Your task to perform on an android device: turn pop-ups off in chrome Image 0: 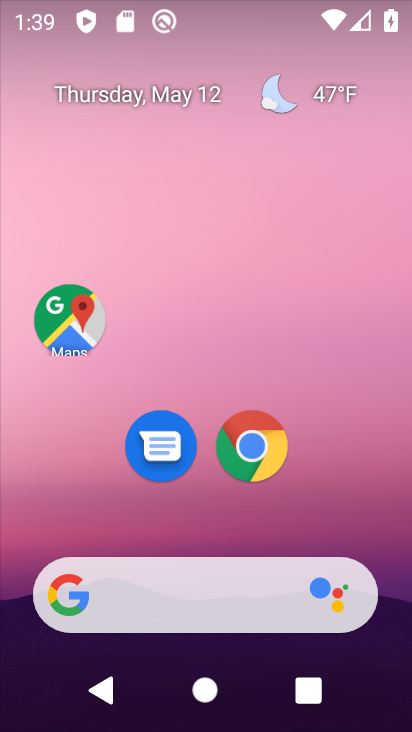
Step 0: drag from (199, 538) to (291, 78)
Your task to perform on an android device: turn pop-ups off in chrome Image 1: 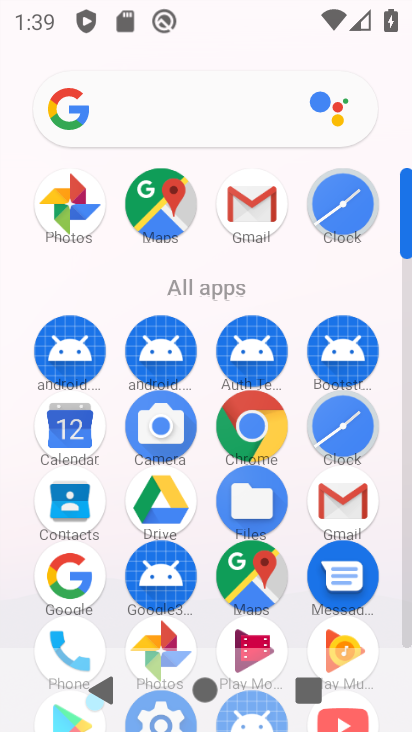
Step 1: click (243, 433)
Your task to perform on an android device: turn pop-ups off in chrome Image 2: 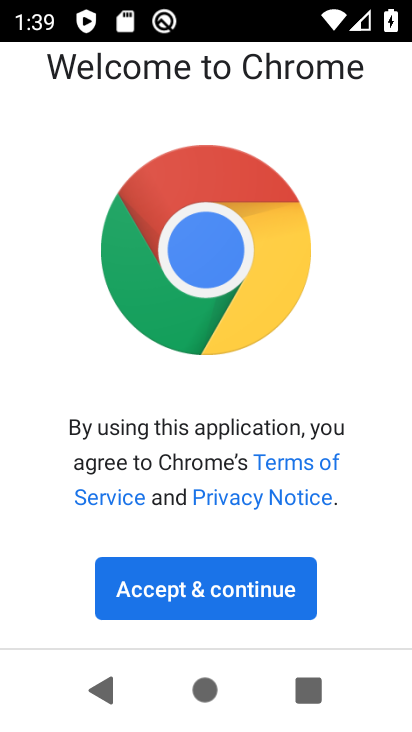
Step 2: click (259, 618)
Your task to perform on an android device: turn pop-ups off in chrome Image 3: 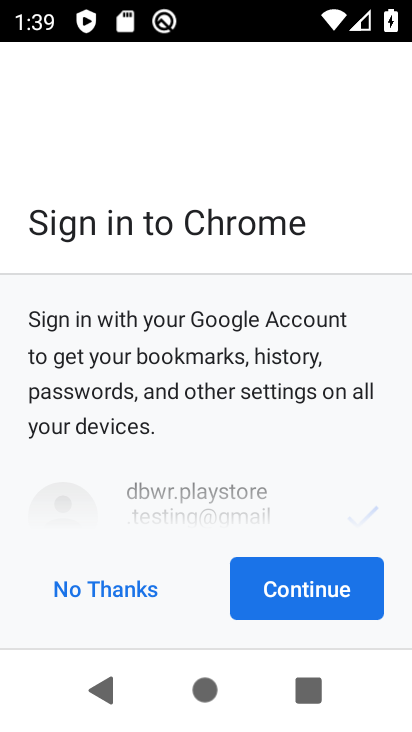
Step 3: click (282, 589)
Your task to perform on an android device: turn pop-ups off in chrome Image 4: 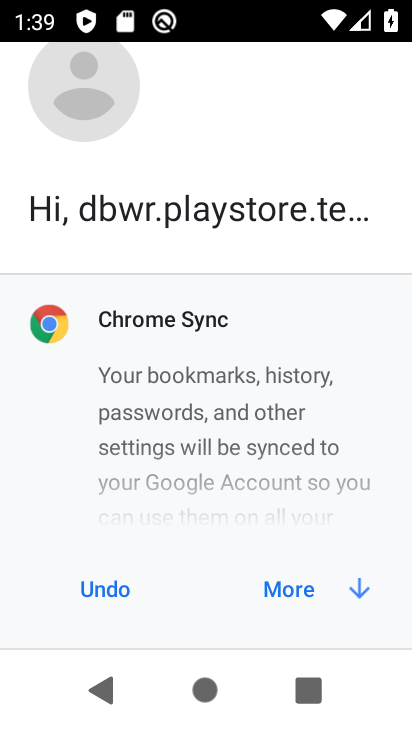
Step 4: click (297, 579)
Your task to perform on an android device: turn pop-ups off in chrome Image 5: 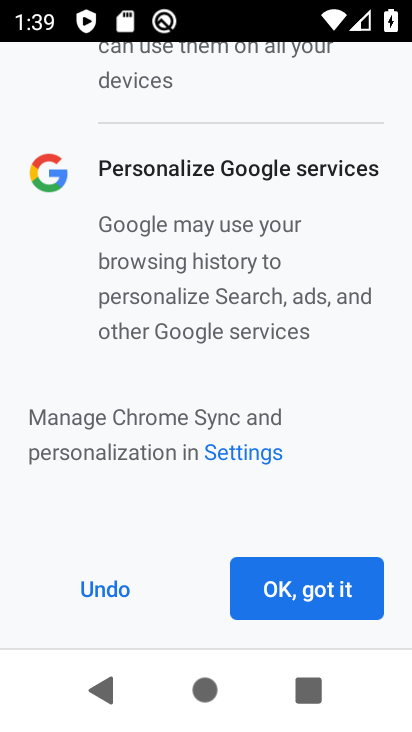
Step 5: click (318, 587)
Your task to perform on an android device: turn pop-ups off in chrome Image 6: 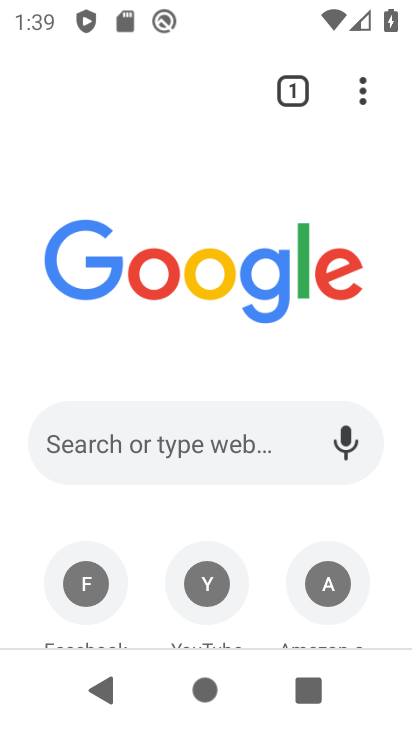
Step 6: click (379, 89)
Your task to perform on an android device: turn pop-ups off in chrome Image 7: 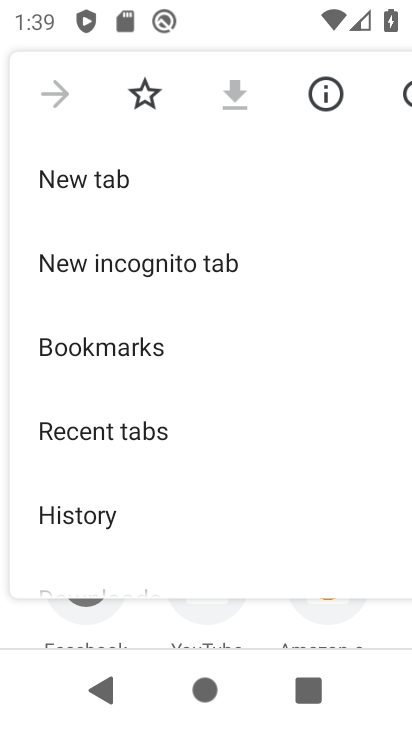
Step 7: drag from (224, 492) to (180, 14)
Your task to perform on an android device: turn pop-ups off in chrome Image 8: 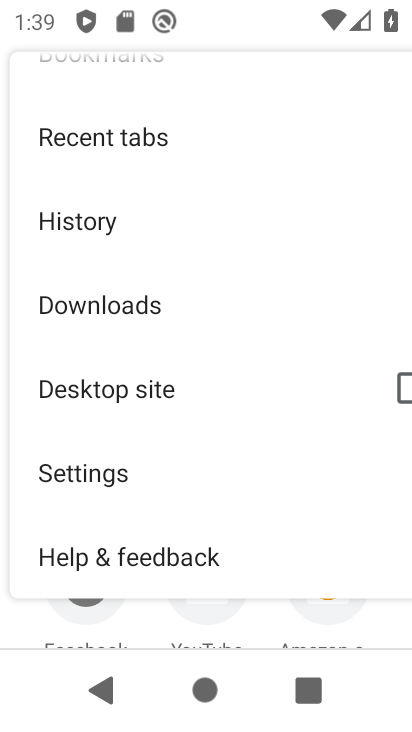
Step 8: click (114, 465)
Your task to perform on an android device: turn pop-ups off in chrome Image 9: 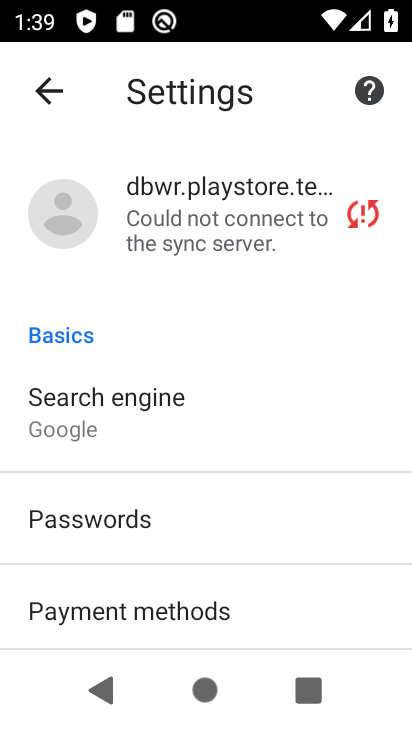
Step 9: drag from (156, 533) to (108, 127)
Your task to perform on an android device: turn pop-ups off in chrome Image 10: 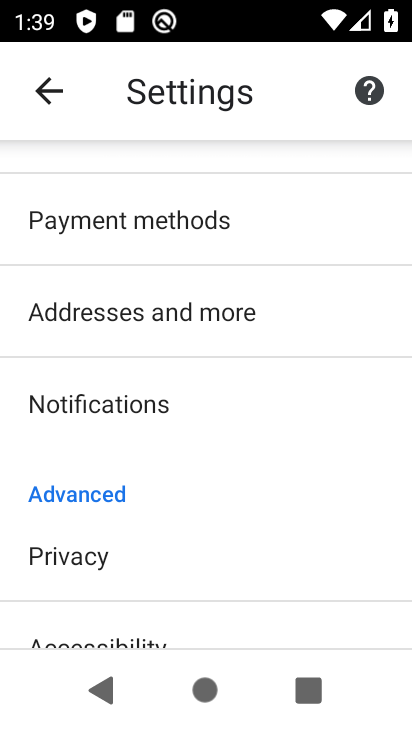
Step 10: drag from (144, 564) to (97, 51)
Your task to perform on an android device: turn pop-ups off in chrome Image 11: 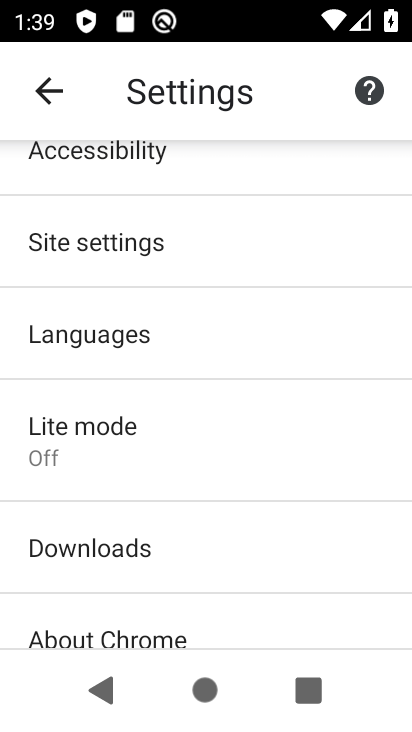
Step 11: click (105, 227)
Your task to perform on an android device: turn pop-ups off in chrome Image 12: 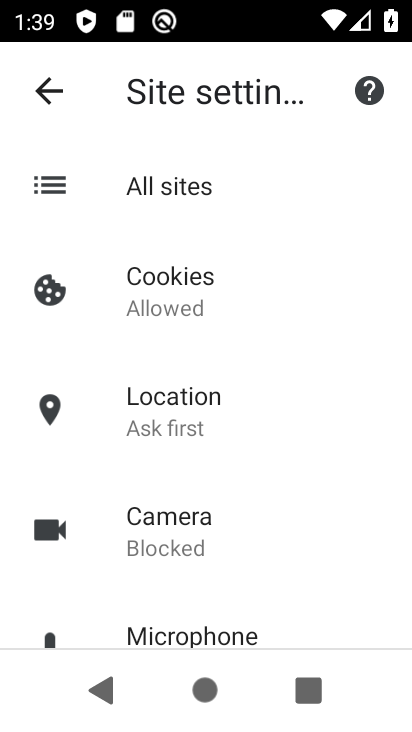
Step 12: drag from (218, 568) to (192, 195)
Your task to perform on an android device: turn pop-ups off in chrome Image 13: 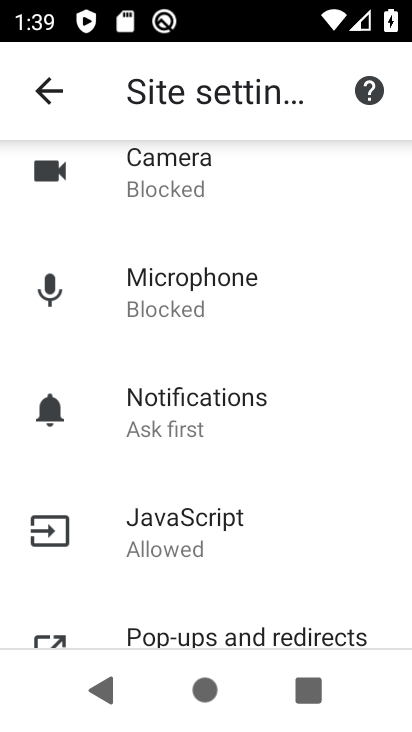
Step 13: click (202, 635)
Your task to perform on an android device: turn pop-ups off in chrome Image 14: 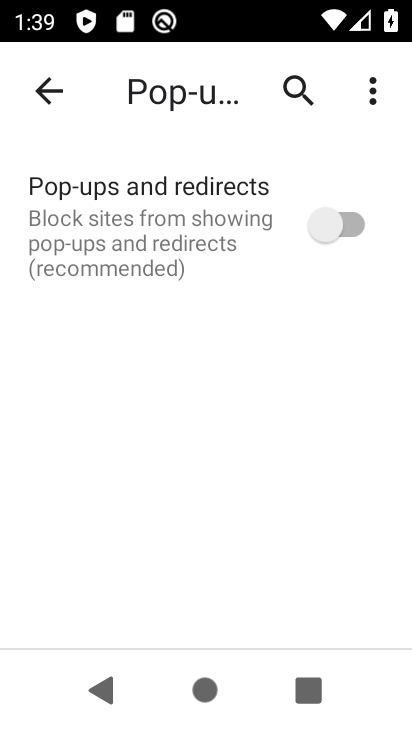
Step 14: click (332, 219)
Your task to perform on an android device: turn pop-ups off in chrome Image 15: 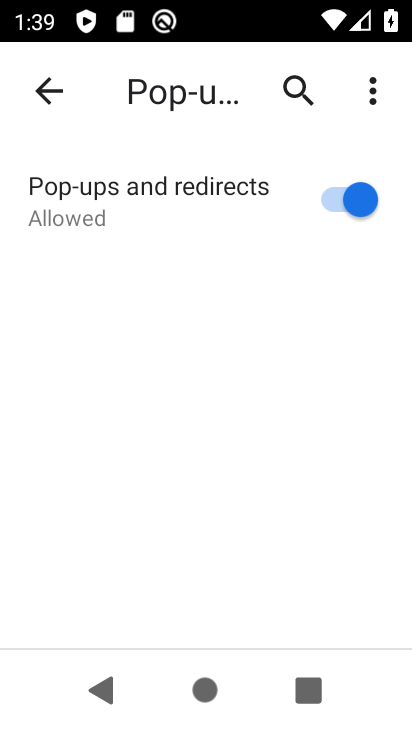
Step 15: task complete